Your task to perform on an android device: Open the stopwatch Image 0: 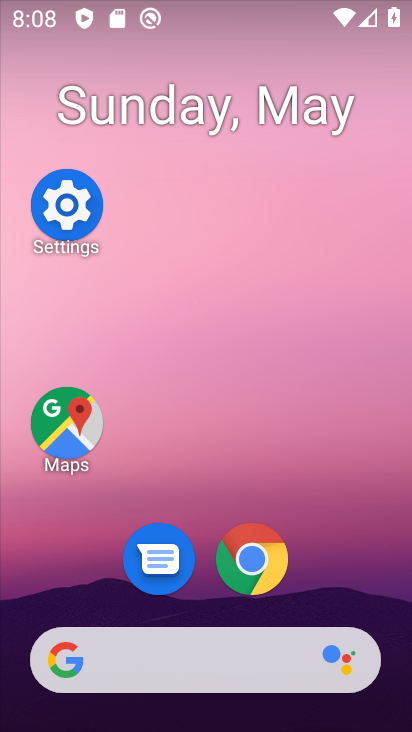
Step 0: drag from (331, 577) to (262, 197)
Your task to perform on an android device: Open the stopwatch Image 1: 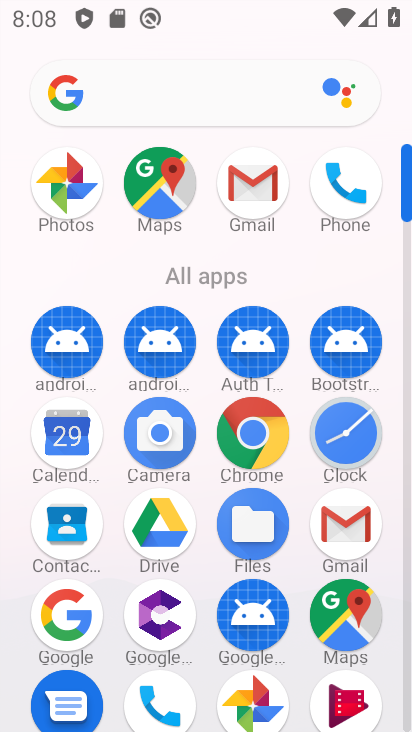
Step 1: drag from (342, 438) to (175, 205)
Your task to perform on an android device: Open the stopwatch Image 2: 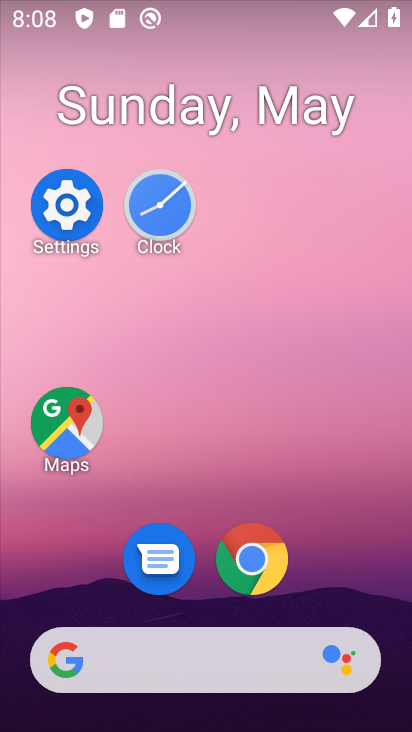
Step 2: click (152, 220)
Your task to perform on an android device: Open the stopwatch Image 3: 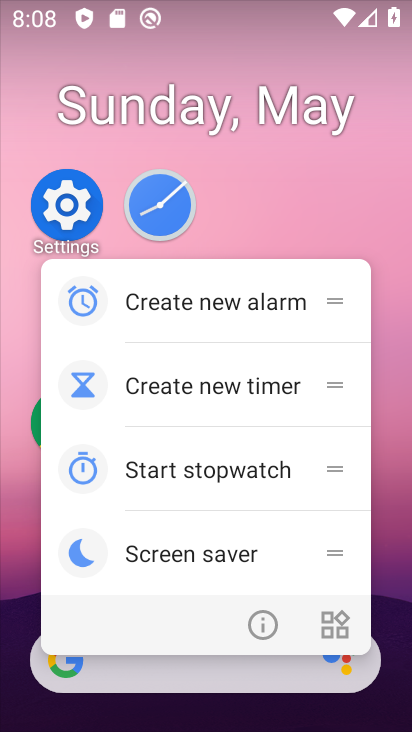
Step 3: click (175, 176)
Your task to perform on an android device: Open the stopwatch Image 4: 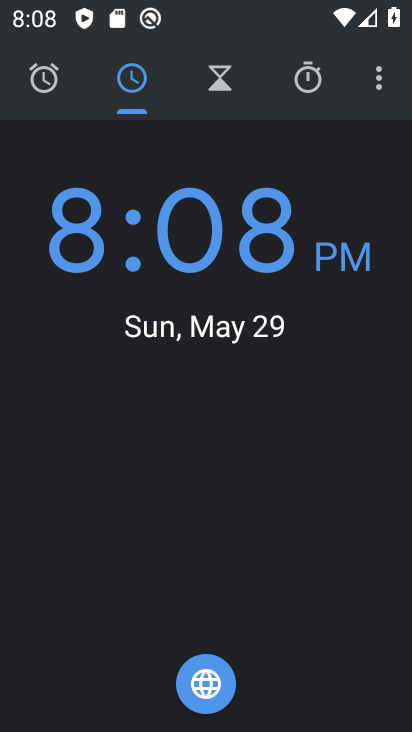
Step 4: click (305, 82)
Your task to perform on an android device: Open the stopwatch Image 5: 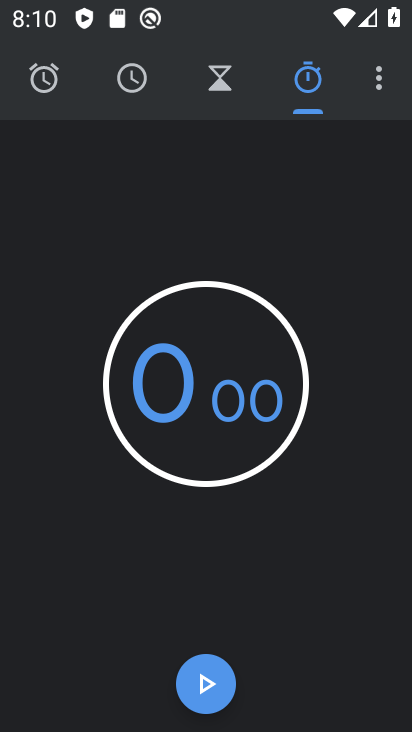
Step 5: task complete